Your task to perform on an android device: change the clock display to show seconds Image 0: 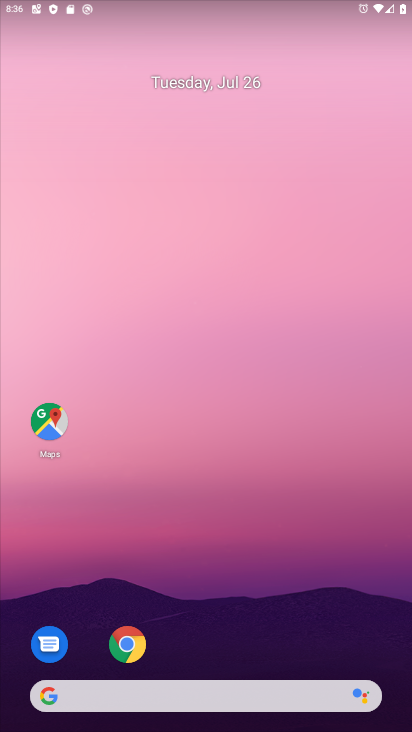
Step 0: drag from (194, 545) to (173, 295)
Your task to perform on an android device: change the clock display to show seconds Image 1: 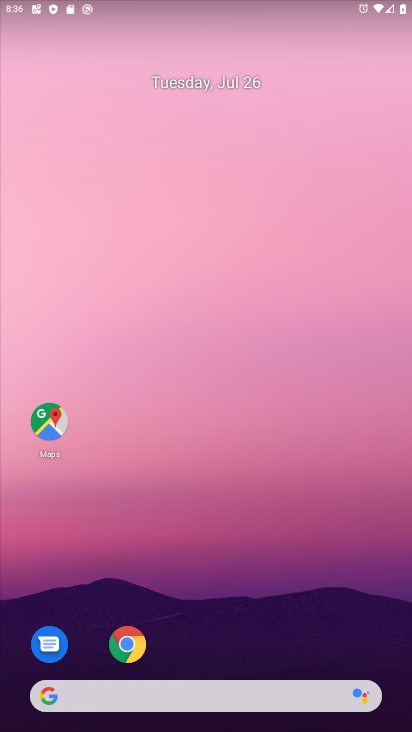
Step 1: drag from (197, 681) to (170, 169)
Your task to perform on an android device: change the clock display to show seconds Image 2: 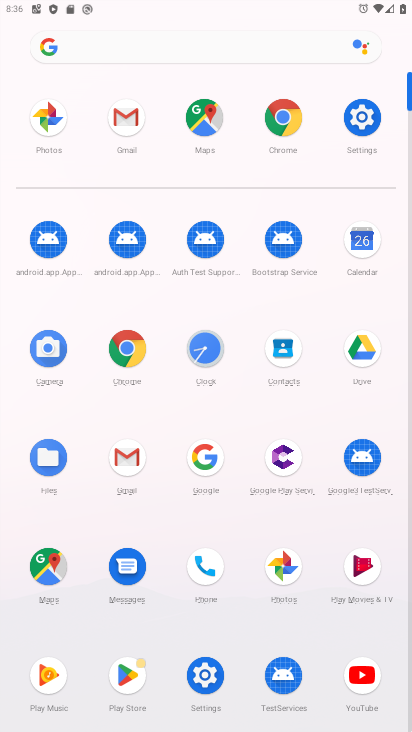
Step 2: click (194, 352)
Your task to perform on an android device: change the clock display to show seconds Image 3: 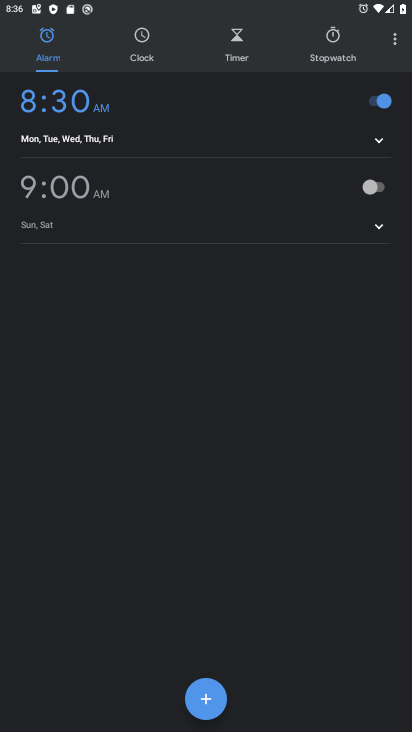
Step 3: click (406, 39)
Your task to perform on an android device: change the clock display to show seconds Image 4: 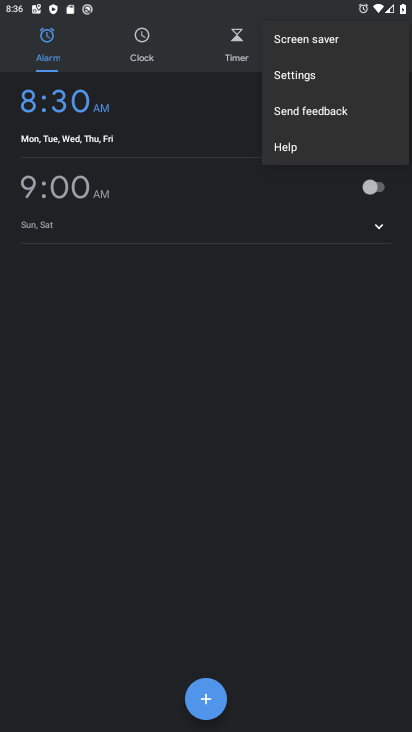
Step 4: click (318, 77)
Your task to perform on an android device: change the clock display to show seconds Image 5: 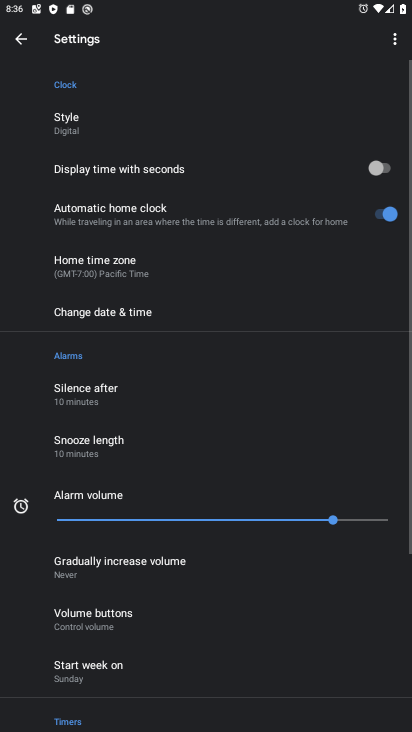
Step 5: click (382, 160)
Your task to perform on an android device: change the clock display to show seconds Image 6: 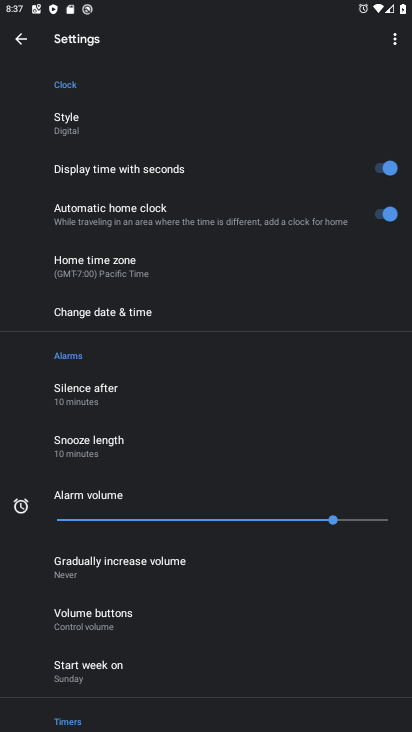
Step 6: task complete